Your task to perform on an android device: Go to Google Image 0: 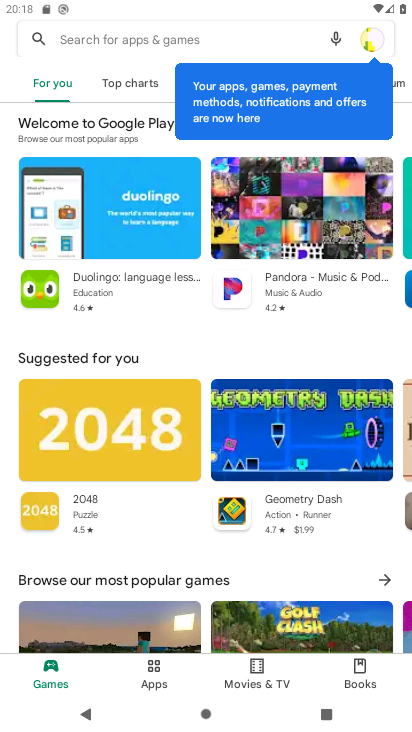
Step 0: press home button
Your task to perform on an android device: Go to Google Image 1: 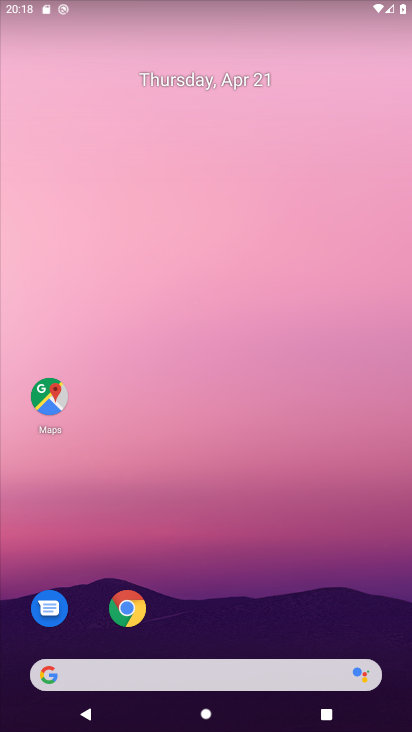
Step 1: click (192, 673)
Your task to perform on an android device: Go to Google Image 2: 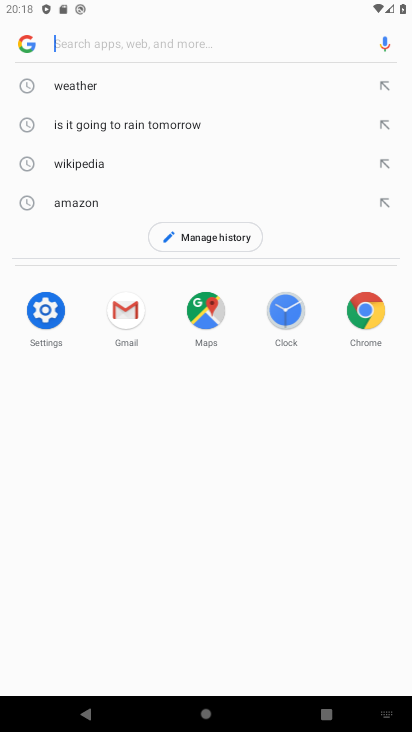
Step 2: task complete